Your task to perform on an android device: Search for Italian restaurants on Maps Image 0: 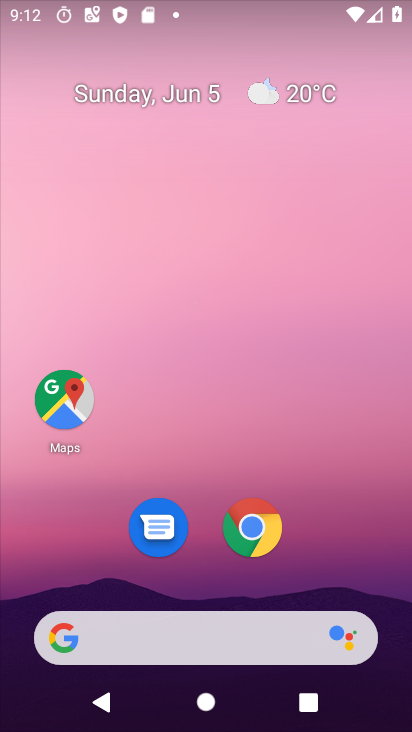
Step 0: drag from (352, 540) to (266, 54)
Your task to perform on an android device: Search for Italian restaurants on Maps Image 1: 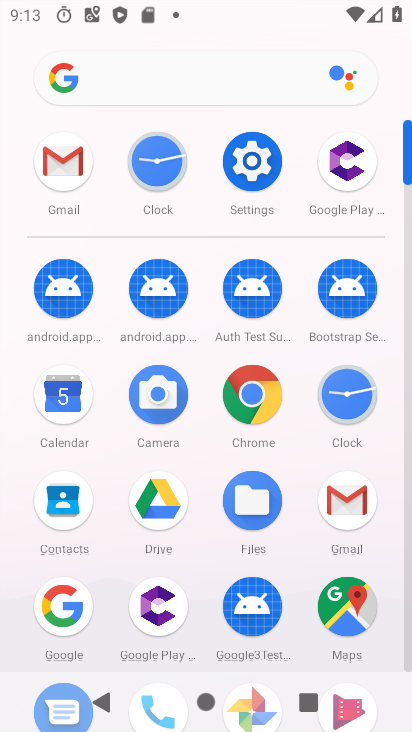
Step 1: click (365, 601)
Your task to perform on an android device: Search for Italian restaurants on Maps Image 2: 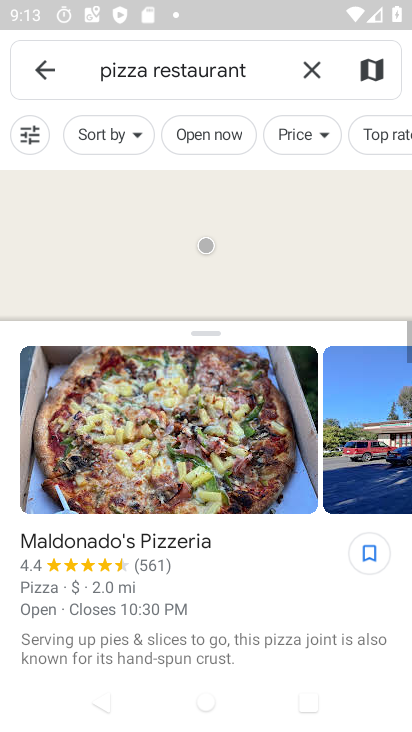
Step 2: click (306, 78)
Your task to perform on an android device: Search for Italian restaurants on Maps Image 3: 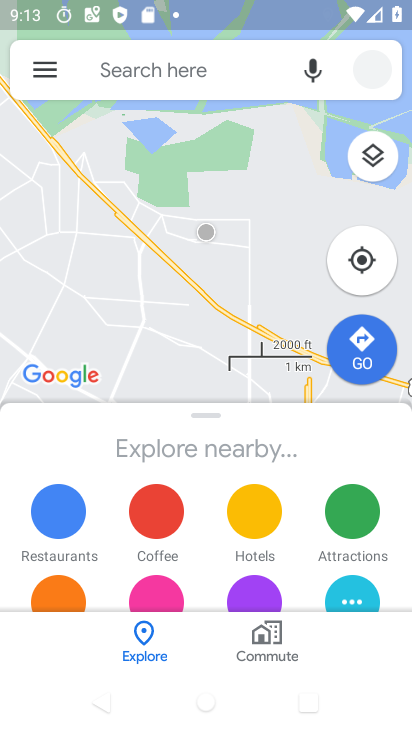
Step 3: click (217, 80)
Your task to perform on an android device: Search for Italian restaurants on Maps Image 4: 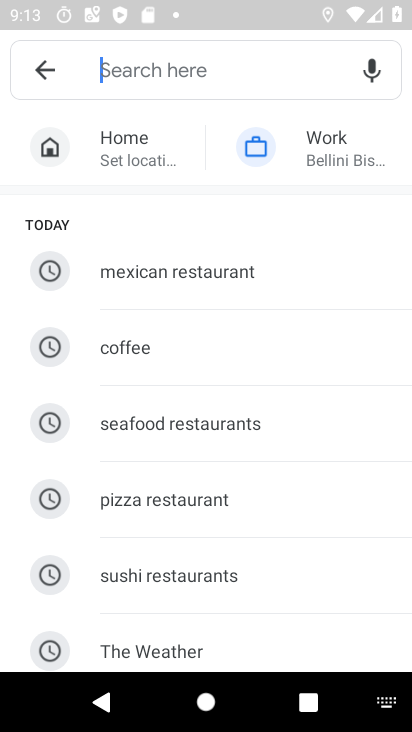
Step 4: drag from (272, 573) to (347, 213)
Your task to perform on an android device: Search for Italian restaurants on Maps Image 5: 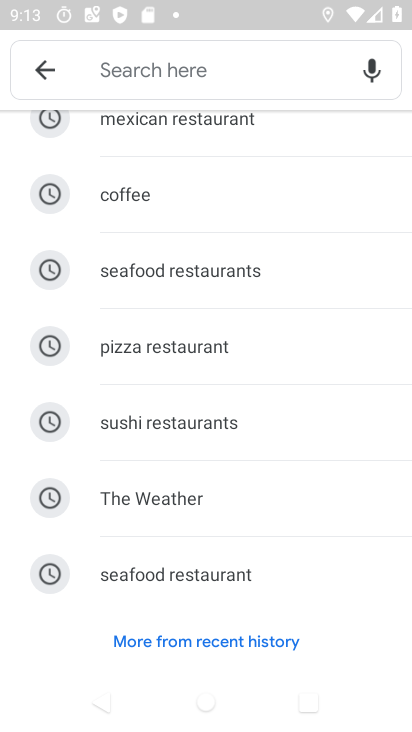
Step 5: drag from (54, 287) to (160, 683)
Your task to perform on an android device: Search for Italian restaurants on Maps Image 6: 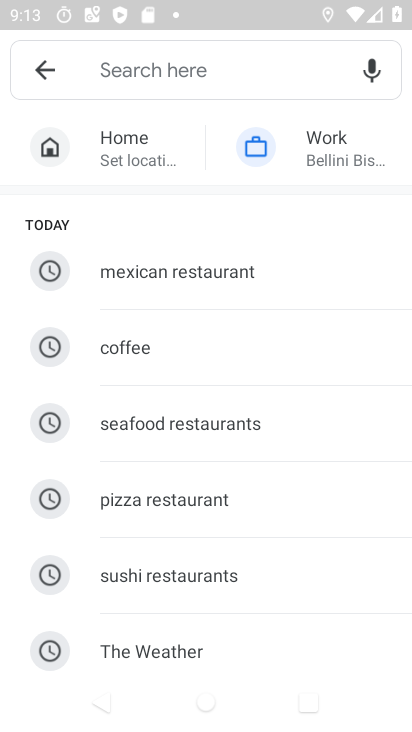
Step 6: click (172, 81)
Your task to perform on an android device: Search for Italian restaurants on Maps Image 7: 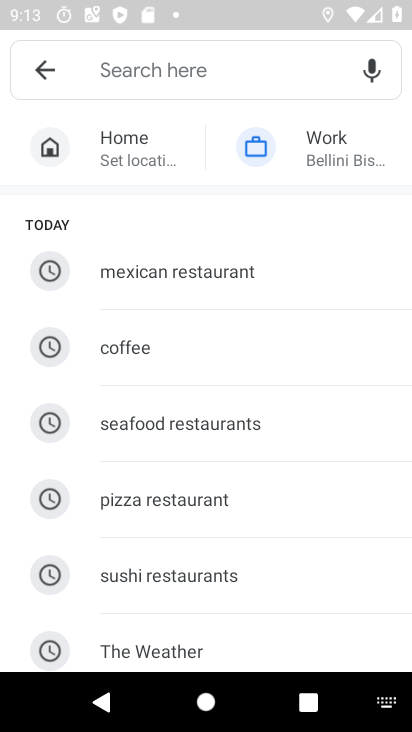
Step 7: type "italian restutebts"
Your task to perform on an android device: Search for Italian restaurants on Maps Image 8: 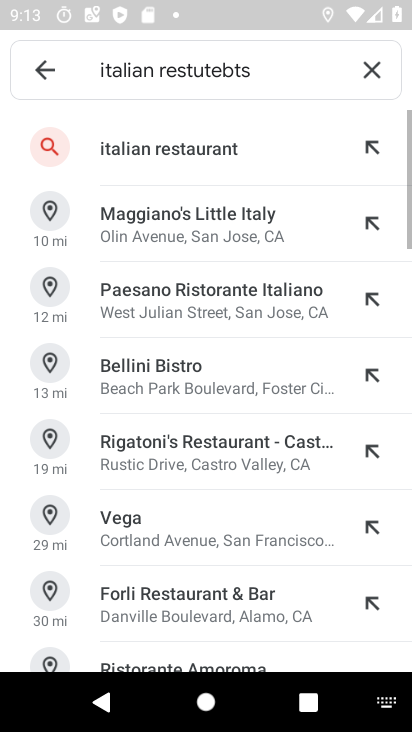
Step 8: click (172, 147)
Your task to perform on an android device: Search for Italian restaurants on Maps Image 9: 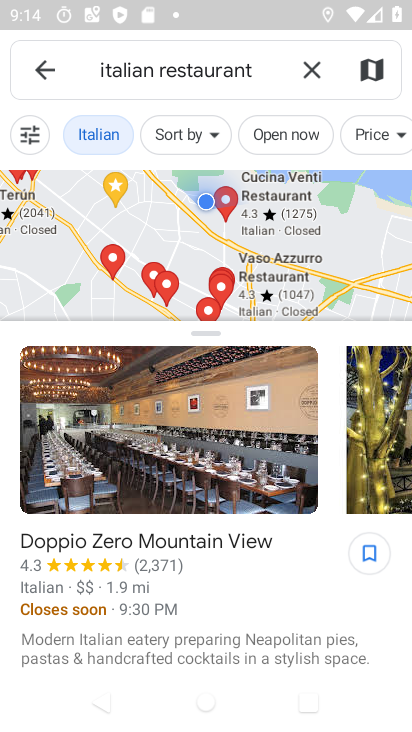
Step 9: task complete